Your task to perform on an android device: open device folders in google photos Image 0: 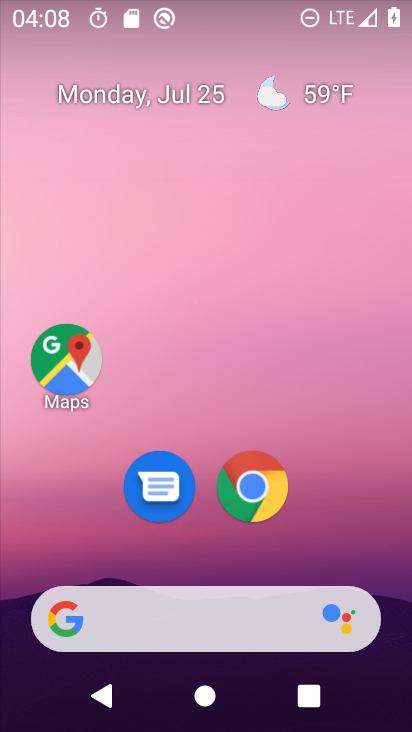
Step 0: drag from (211, 569) to (267, 57)
Your task to perform on an android device: open device folders in google photos Image 1: 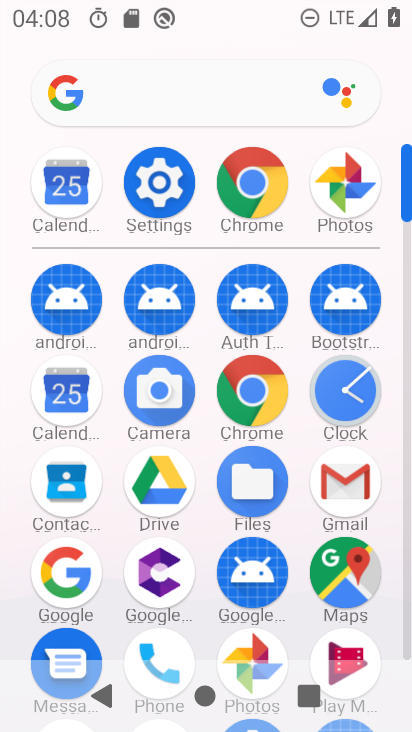
Step 1: click (248, 639)
Your task to perform on an android device: open device folders in google photos Image 2: 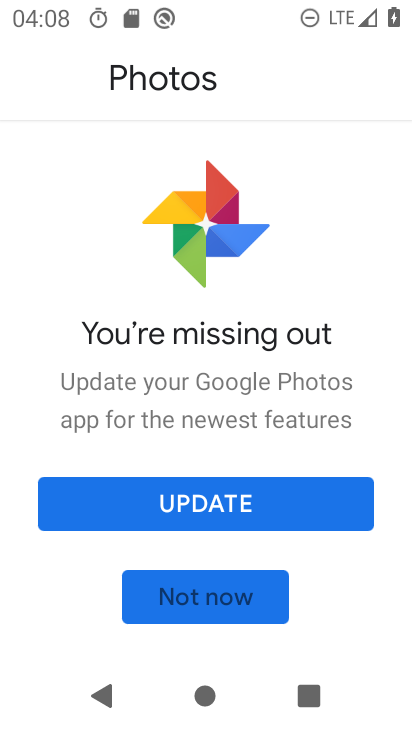
Step 2: click (237, 597)
Your task to perform on an android device: open device folders in google photos Image 3: 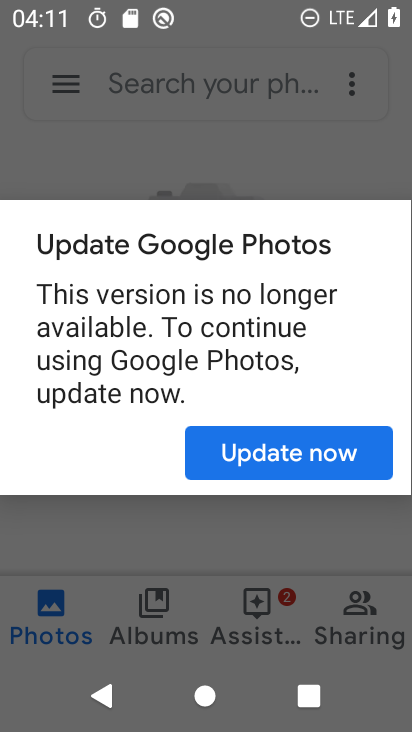
Step 3: press back button
Your task to perform on an android device: open device folders in google photos Image 4: 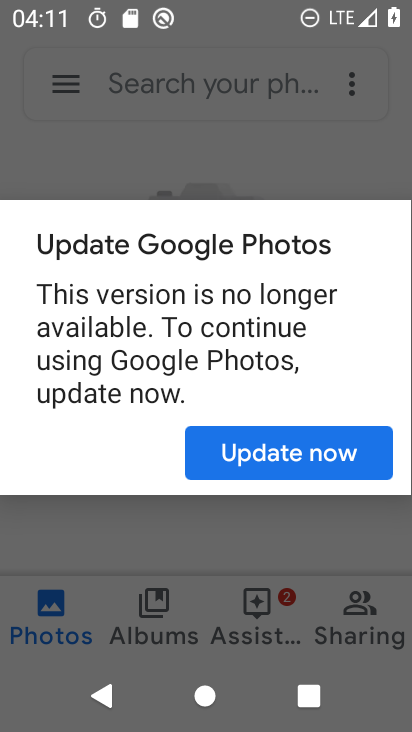
Step 4: press home button
Your task to perform on an android device: open device folders in google photos Image 5: 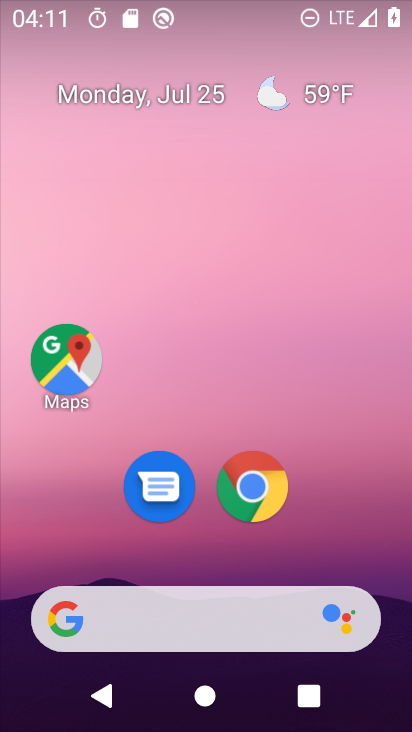
Step 5: drag from (196, 545) to (258, 17)
Your task to perform on an android device: open device folders in google photos Image 6: 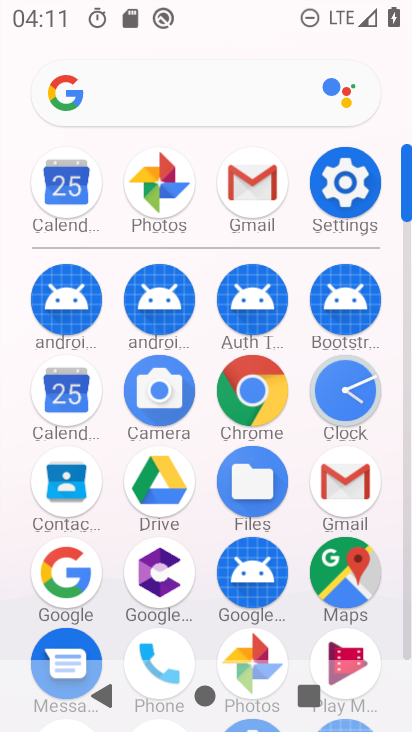
Step 6: click (249, 639)
Your task to perform on an android device: open device folders in google photos Image 7: 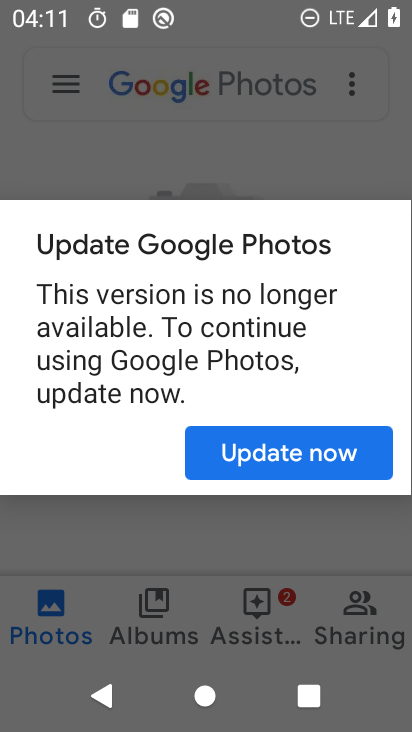
Step 7: click (264, 459)
Your task to perform on an android device: open device folders in google photos Image 8: 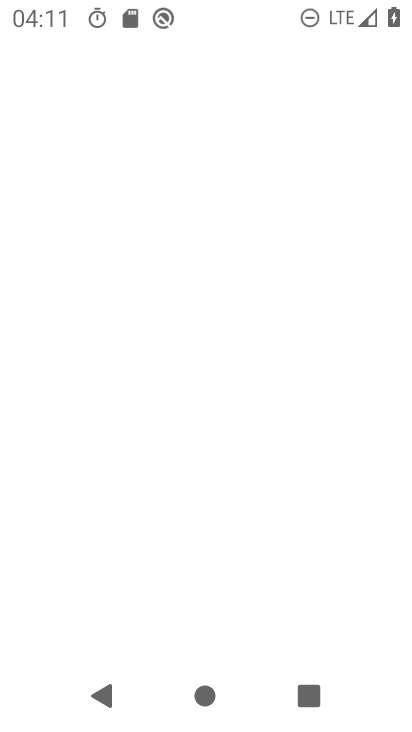
Step 8: click (73, 79)
Your task to perform on an android device: open device folders in google photos Image 9: 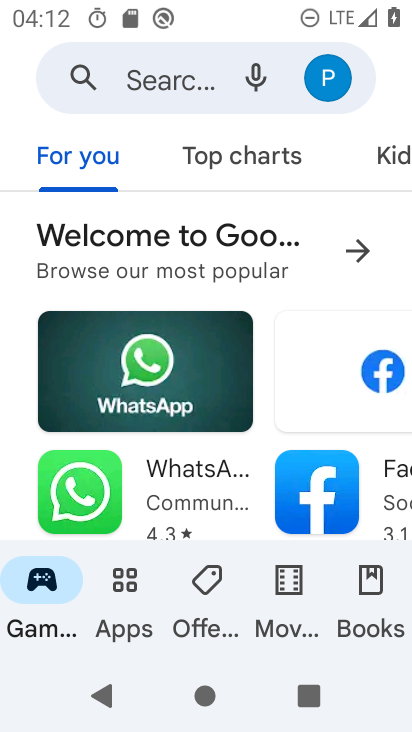
Step 9: press home button
Your task to perform on an android device: open device folders in google photos Image 10: 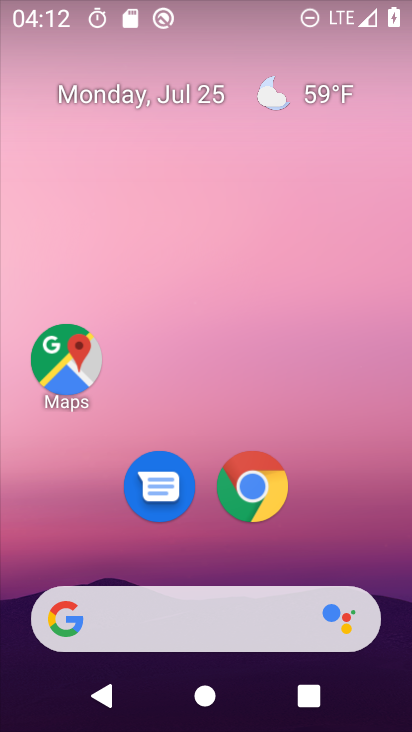
Step 10: drag from (161, 568) to (293, 115)
Your task to perform on an android device: open device folders in google photos Image 11: 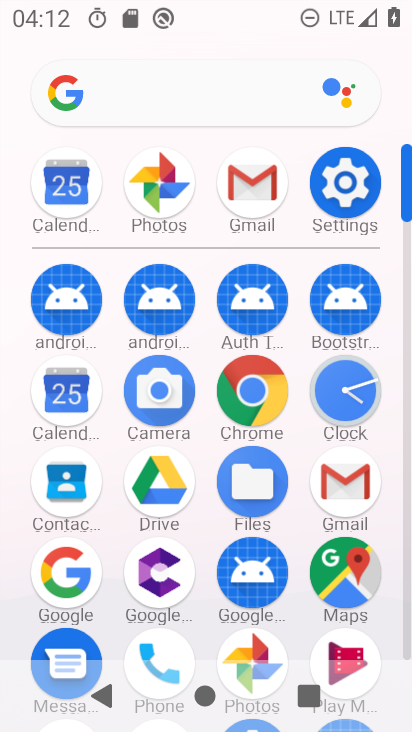
Step 11: click (251, 642)
Your task to perform on an android device: open device folders in google photos Image 12: 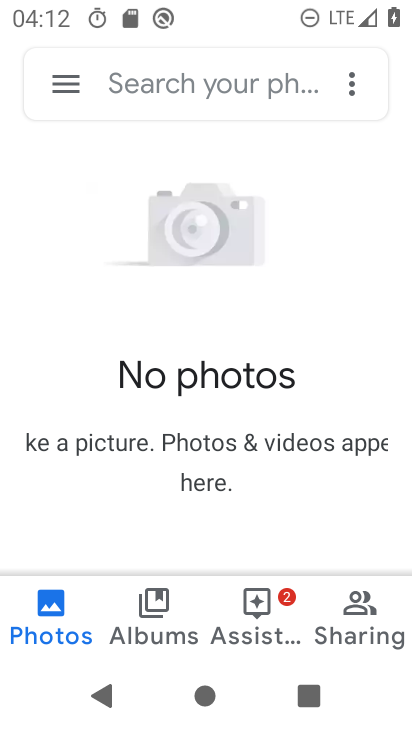
Step 12: click (44, 86)
Your task to perform on an android device: open device folders in google photos Image 13: 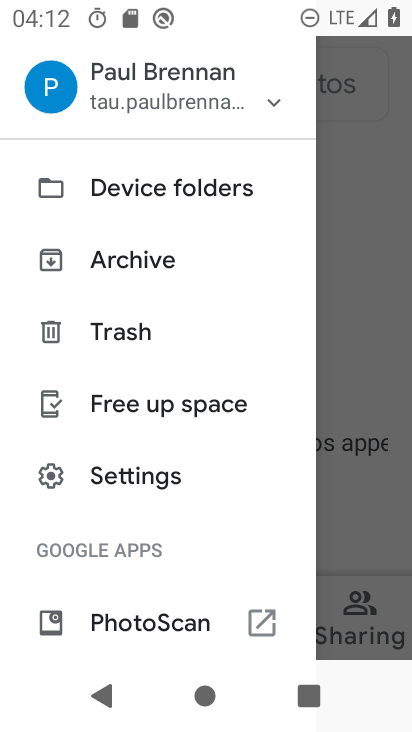
Step 13: click (206, 201)
Your task to perform on an android device: open device folders in google photos Image 14: 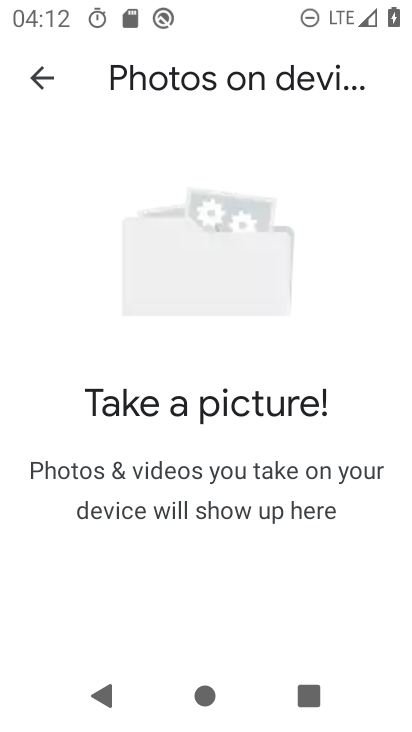
Step 14: click (40, 80)
Your task to perform on an android device: open device folders in google photos Image 15: 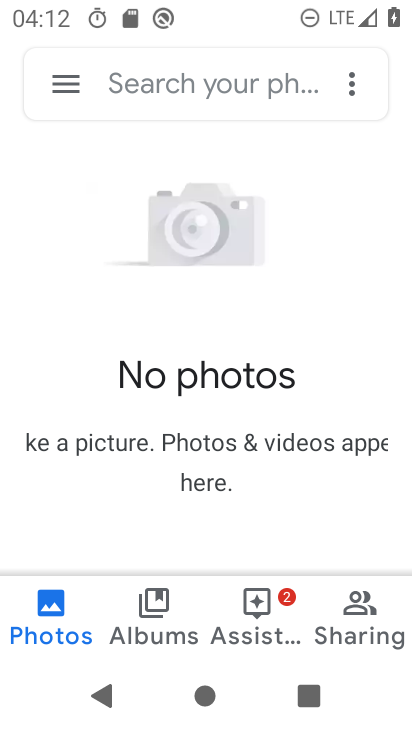
Step 15: click (52, 84)
Your task to perform on an android device: open device folders in google photos Image 16: 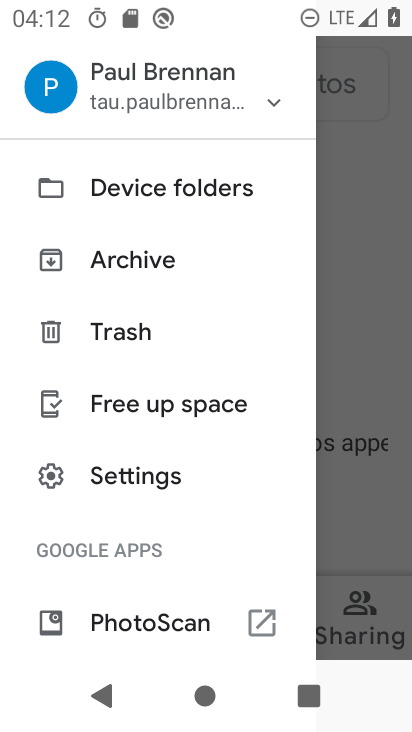
Step 16: click (138, 192)
Your task to perform on an android device: open device folders in google photos Image 17: 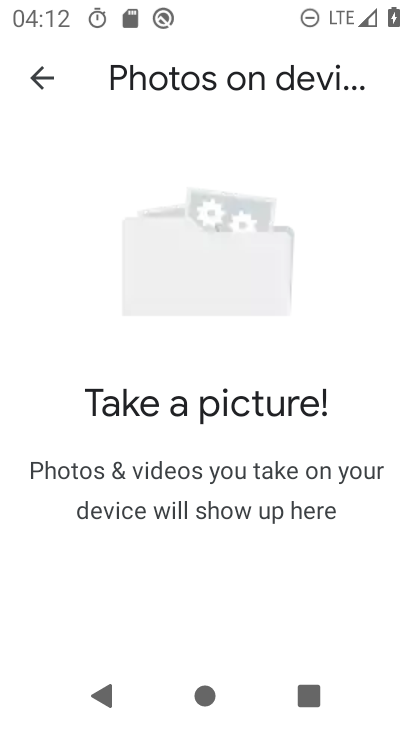
Step 17: task complete